Your task to perform on an android device: turn off notifications settings in the gmail app Image 0: 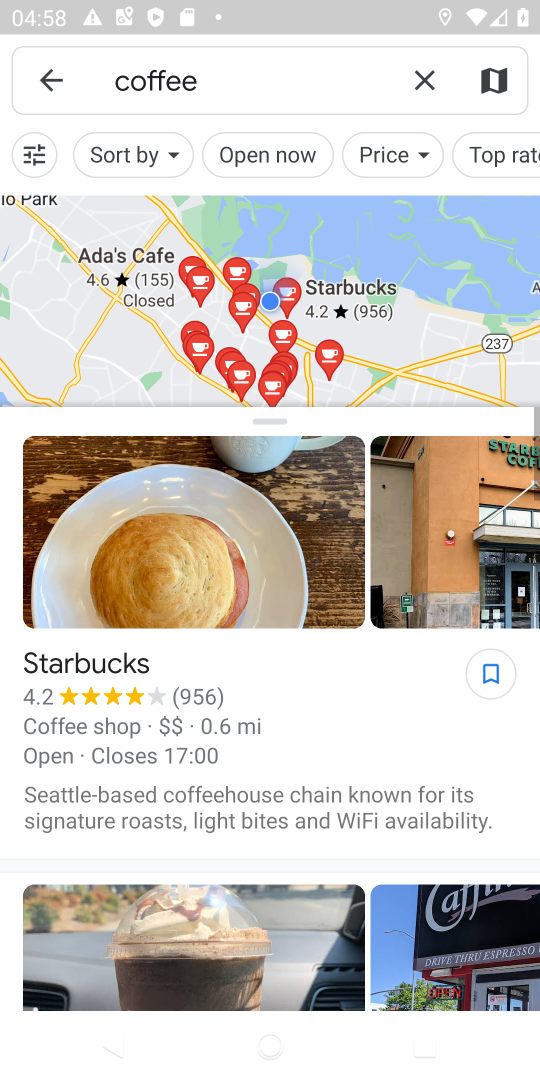
Step 0: press home button
Your task to perform on an android device: turn off notifications settings in the gmail app Image 1: 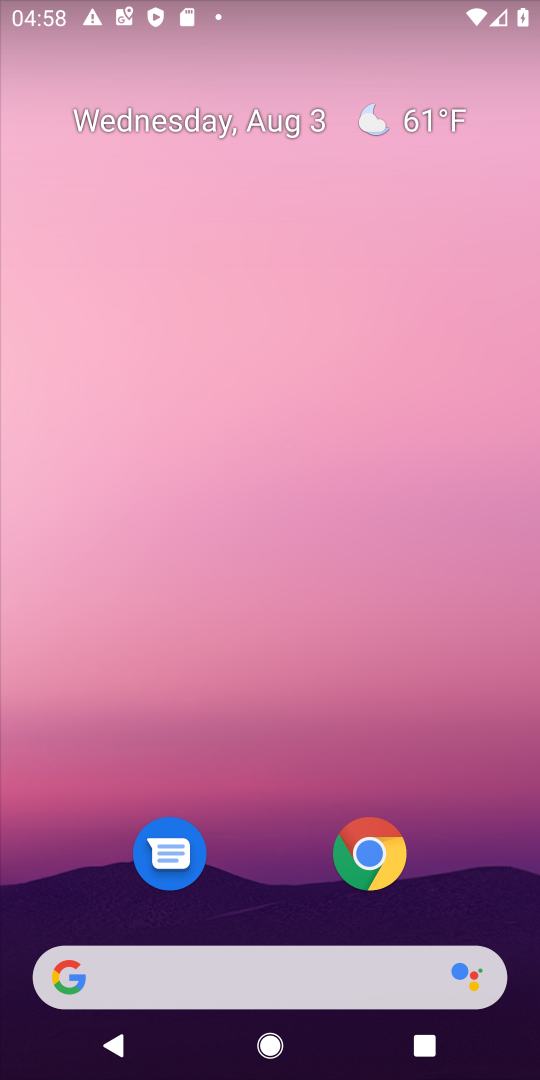
Step 1: drag from (277, 903) to (272, 160)
Your task to perform on an android device: turn off notifications settings in the gmail app Image 2: 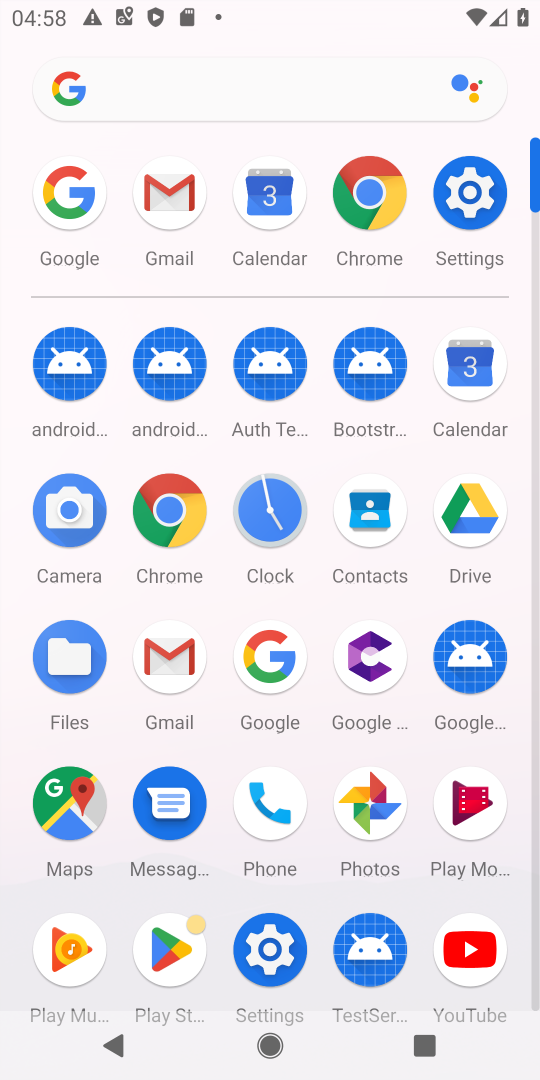
Step 2: click (159, 649)
Your task to perform on an android device: turn off notifications settings in the gmail app Image 3: 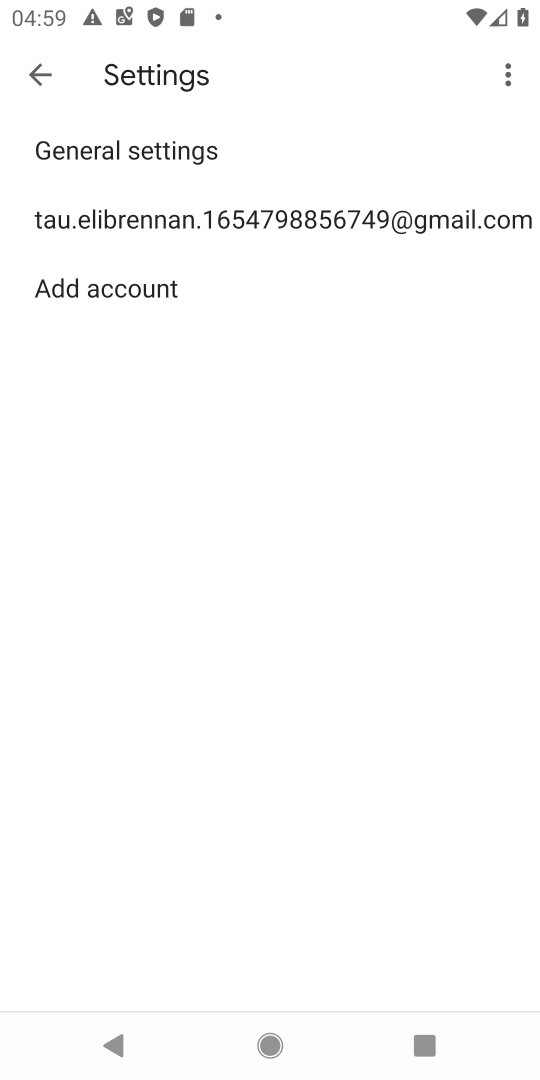
Step 3: click (286, 224)
Your task to perform on an android device: turn off notifications settings in the gmail app Image 4: 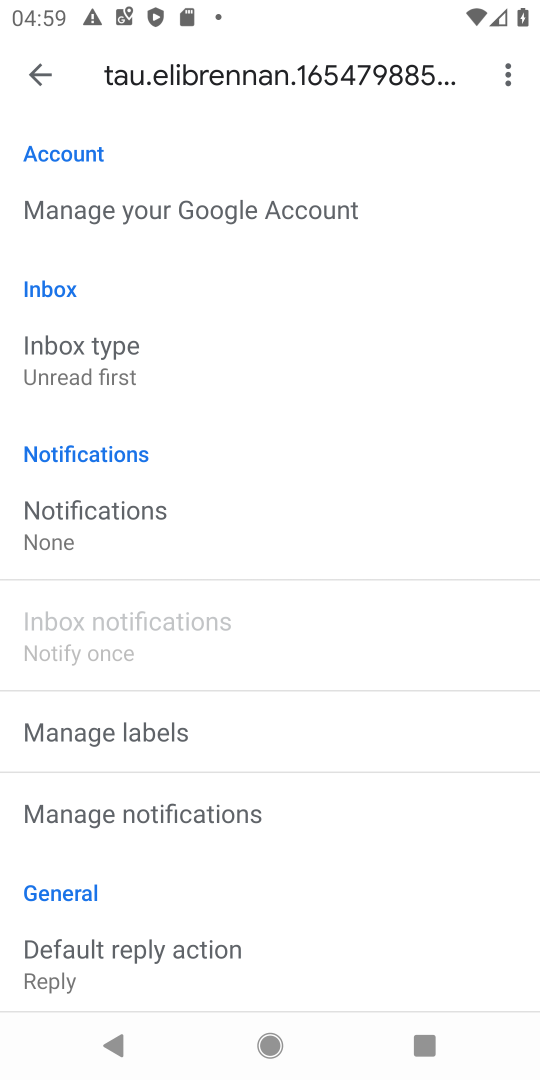
Step 4: task complete